Your task to perform on an android device: toggle translation in the chrome app Image 0: 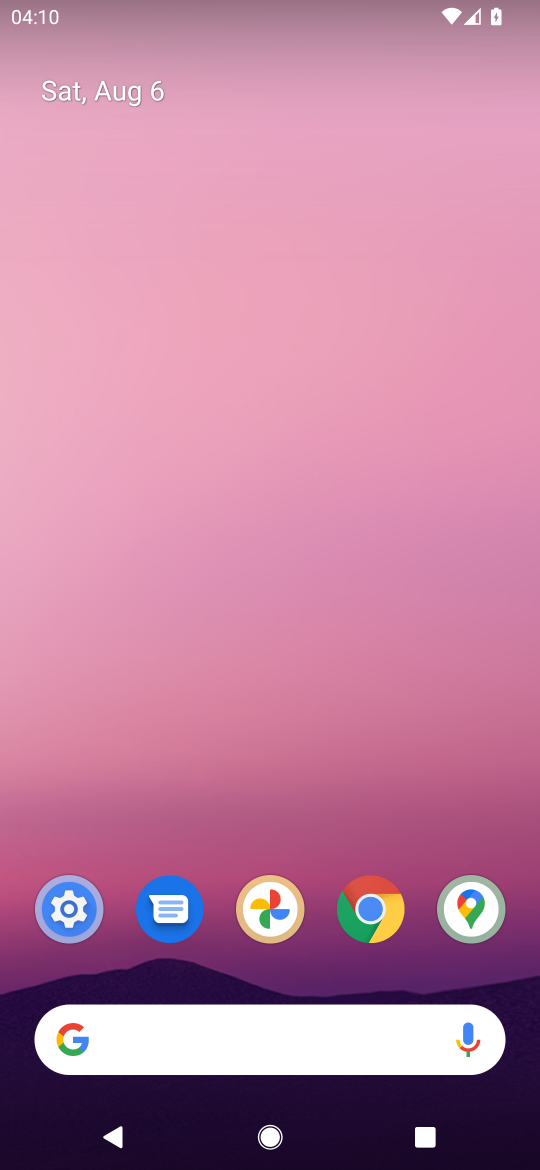
Step 0: click (377, 906)
Your task to perform on an android device: toggle translation in the chrome app Image 1: 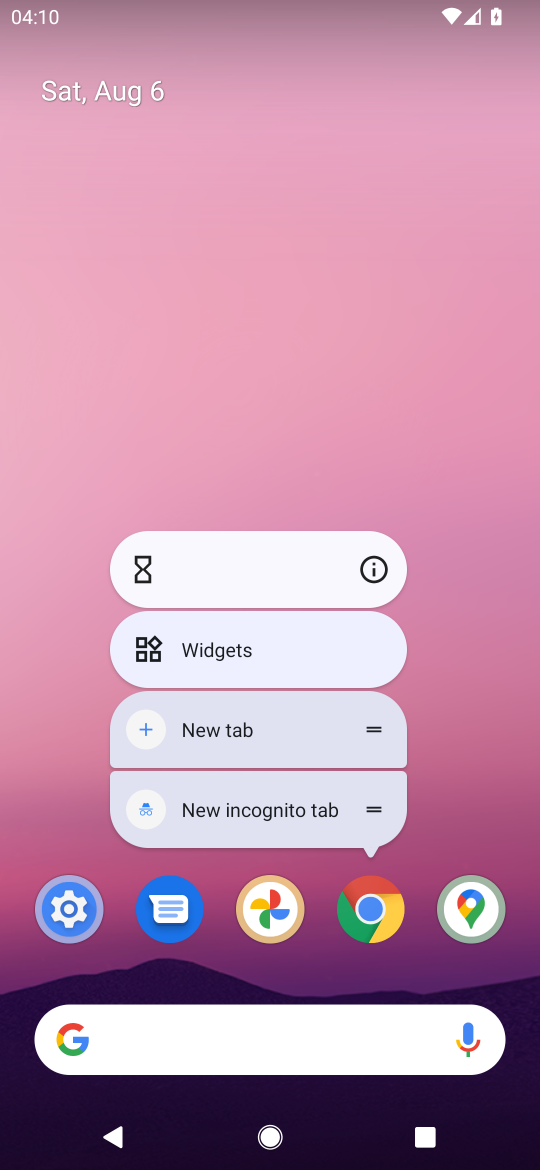
Step 1: click (380, 918)
Your task to perform on an android device: toggle translation in the chrome app Image 2: 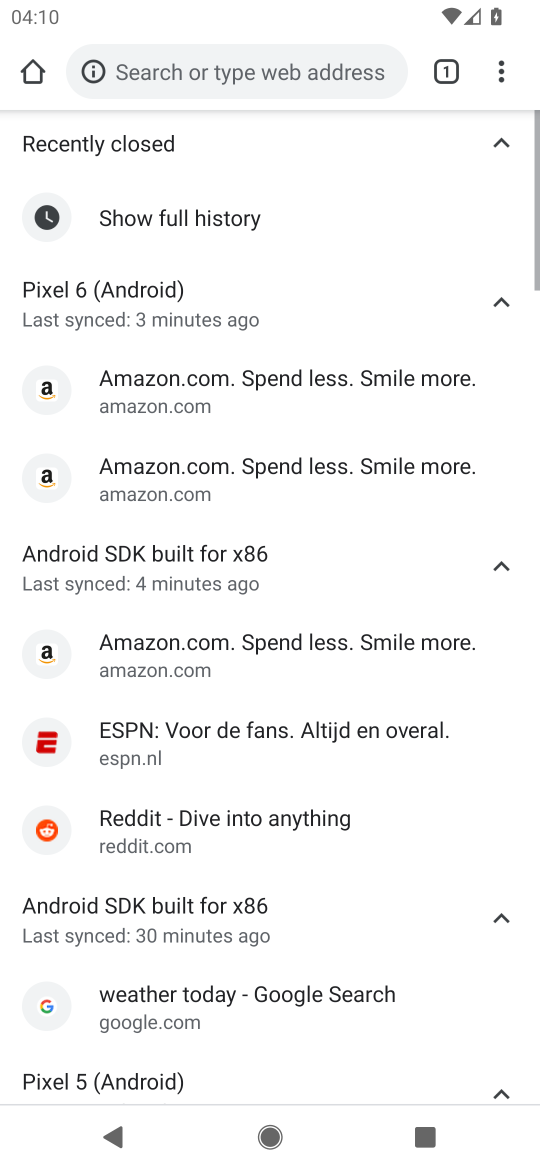
Step 2: drag from (496, 73) to (264, 718)
Your task to perform on an android device: toggle translation in the chrome app Image 3: 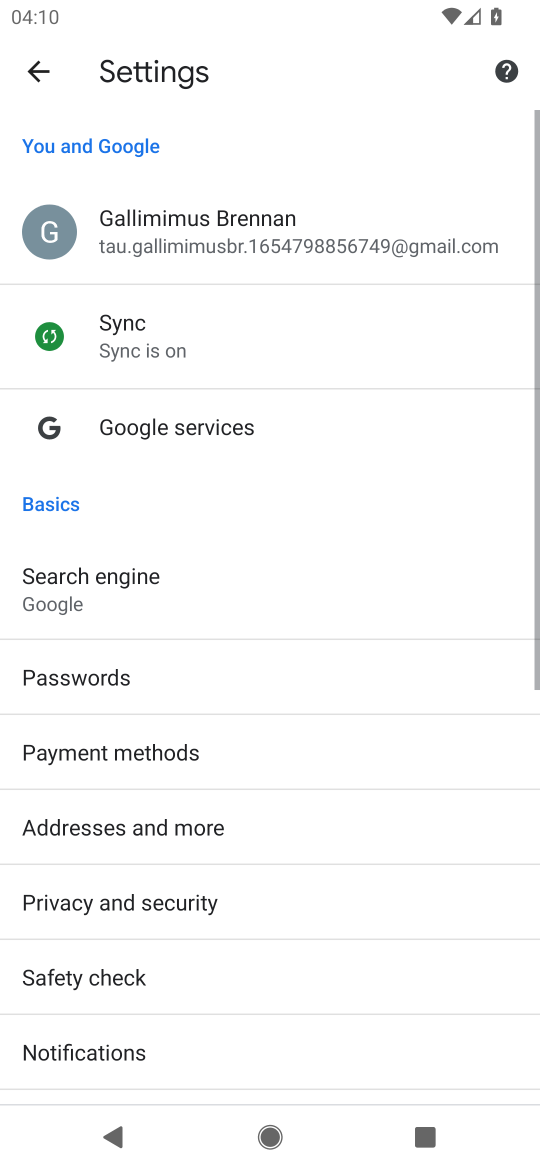
Step 3: drag from (278, 950) to (378, 267)
Your task to perform on an android device: toggle translation in the chrome app Image 4: 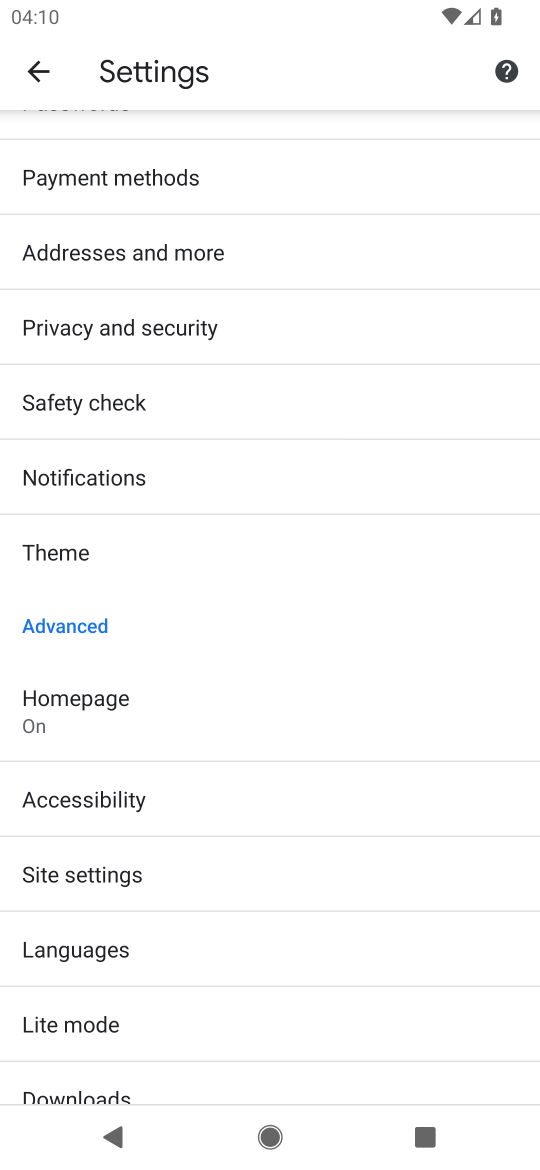
Step 4: click (144, 949)
Your task to perform on an android device: toggle translation in the chrome app Image 5: 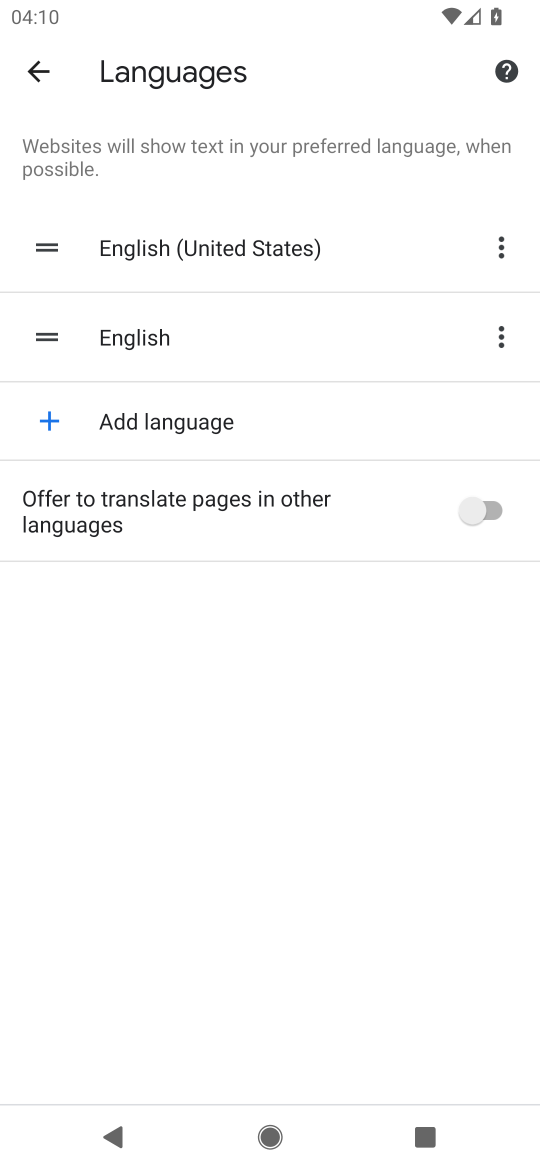
Step 5: click (495, 498)
Your task to perform on an android device: toggle translation in the chrome app Image 6: 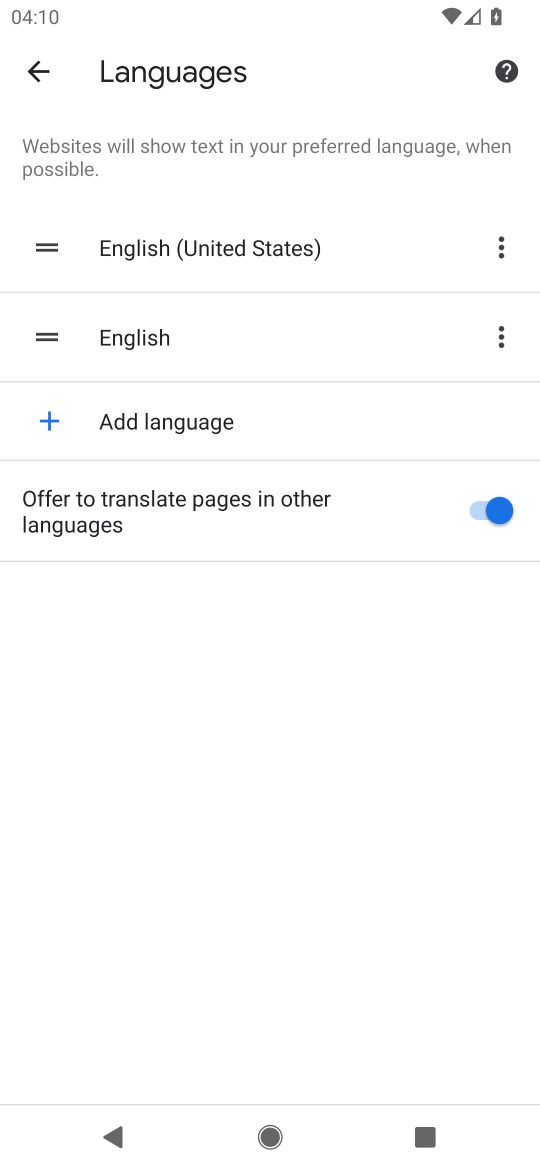
Step 6: task complete